Your task to perform on an android device: open chrome and create a bookmark for the current page Image 0: 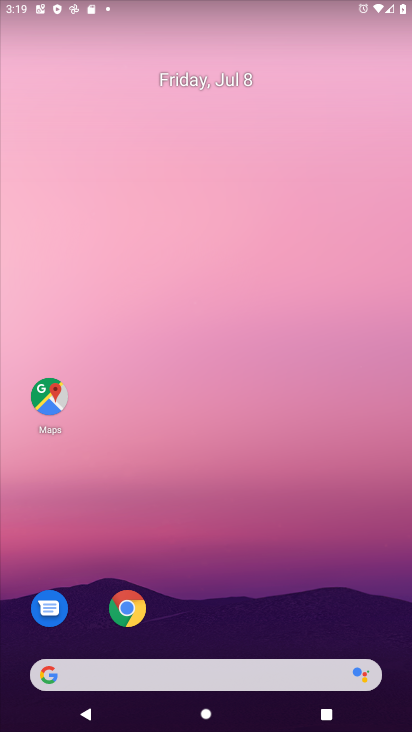
Step 0: drag from (315, 659) to (283, 6)
Your task to perform on an android device: open chrome and create a bookmark for the current page Image 1: 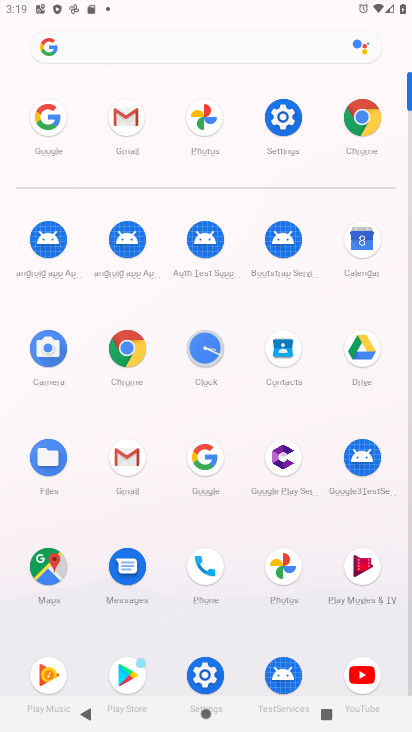
Step 1: click (108, 358)
Your task to perform on an android device: open chrome and create a bookmark for the current page Image 2: 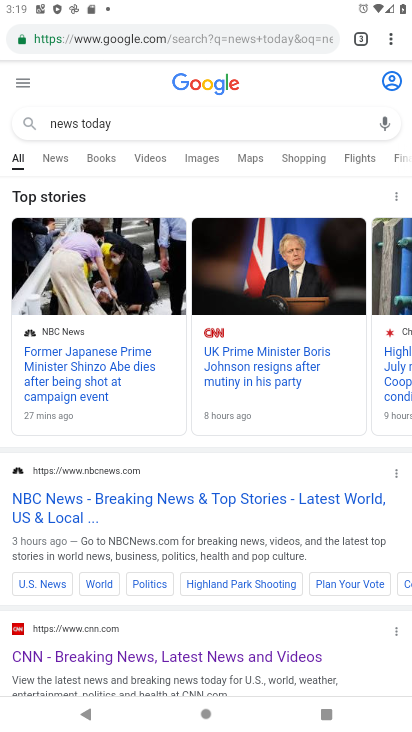
Step 2: task complete